Your task to perform on an android device: Go to Maps Image 0: 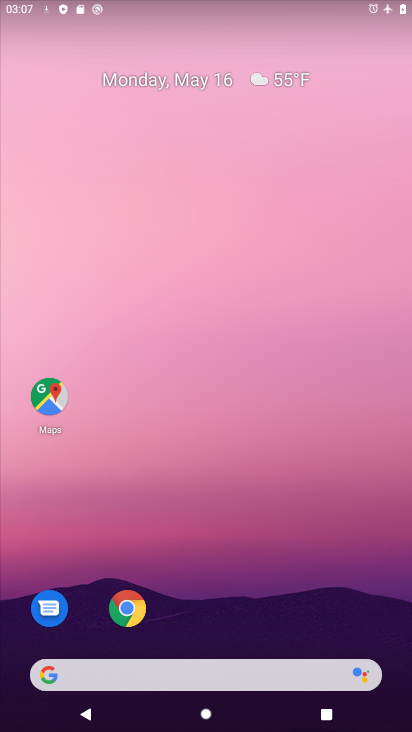
Step 0: click (49, 410)
Your task to perform on an android device: Go to Maps Image 1: 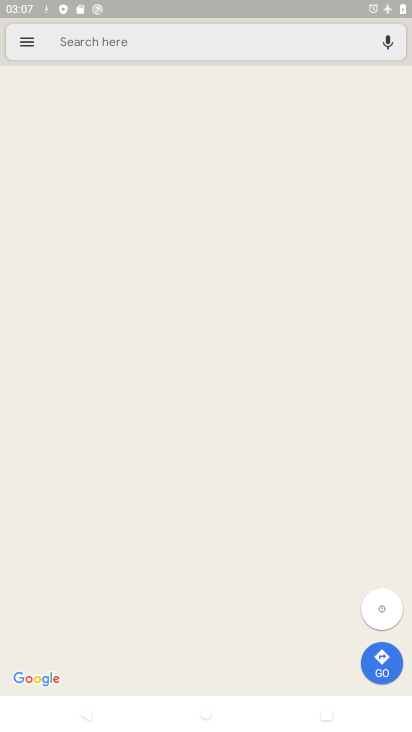
Step 1: task complete